Your task to perform on an android device: Go to internet settings Image 0: 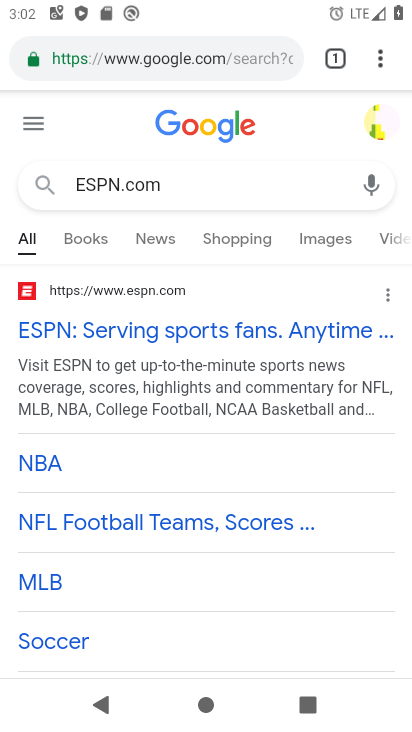
Step 0: press home button
Your task to perform on an android device: Go to internet settings Image 1: 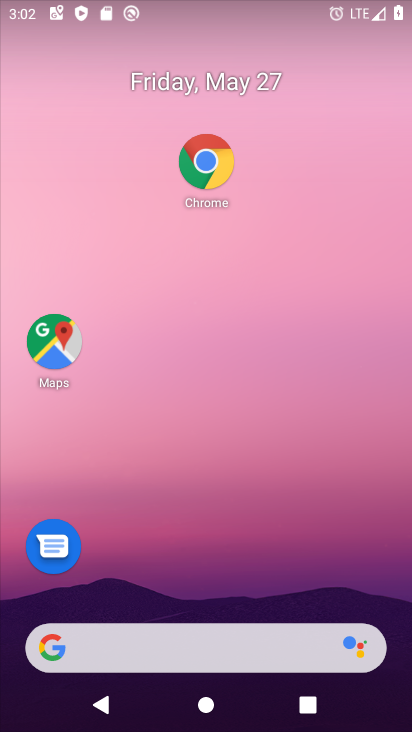
Step 1: drag from (167, 582) to (207, 139)
Your task to perform on an android device: Go to internet settings Image 2: 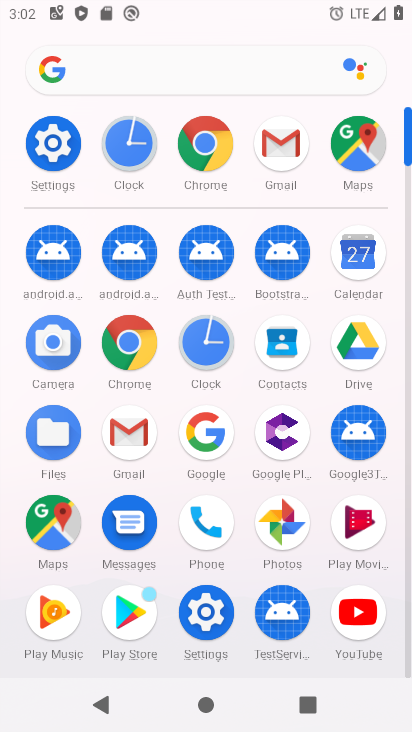
Step 2: click (48, 146)
Your task to perform on an android device: Go to internet settings Image 3: 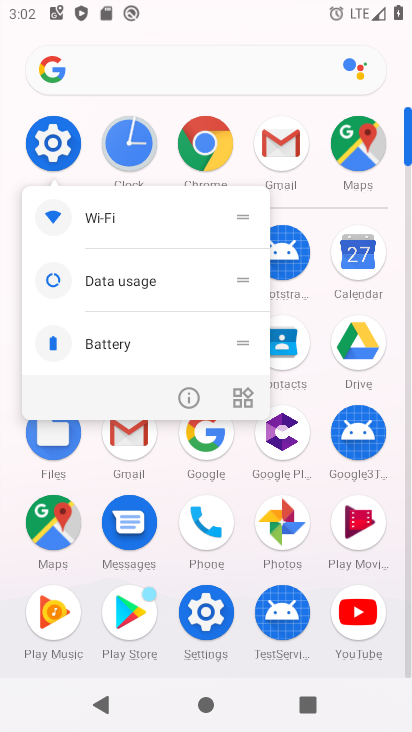
Step 3: click (54, 136)
Your task to perform on an android device: Go to internet settings Image 4: 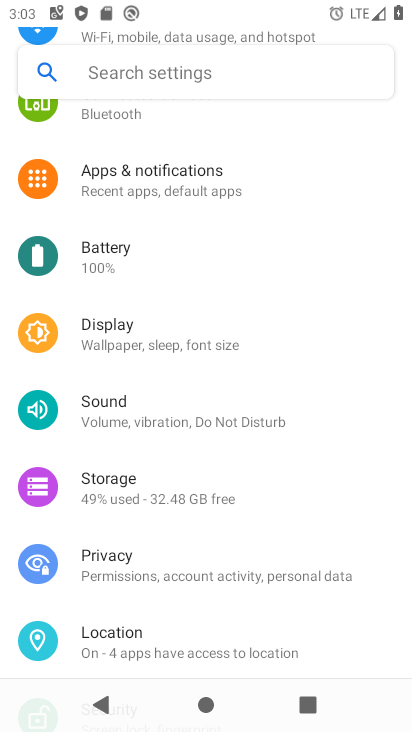
Step 4: drag from (185, 160) to (116, 623)
Your task to perform on an android device: Go to internet settings Image 5: 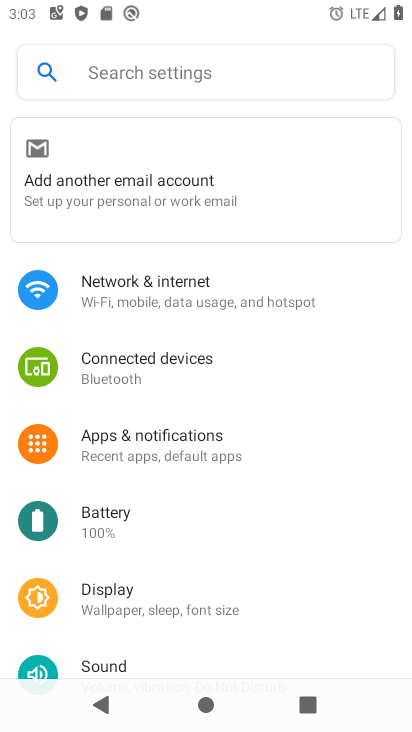
Step 5: click (157, 281)
Your task to perform on an android device: Go to internet settings Image 6: 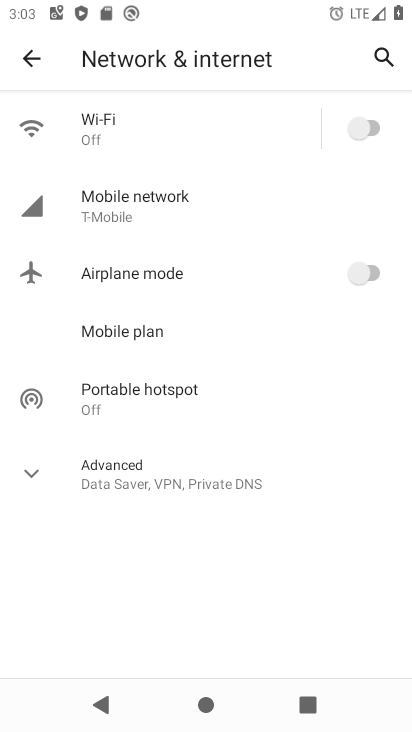
Step 6: task complete